Your task to perform on an android device: turn on sleep mode Image 0: 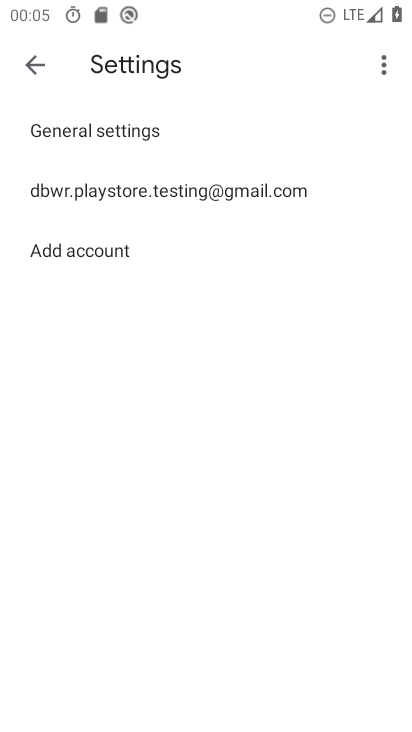
Step 0: press home button
Your task to perform on an android device: turn on sleep mode Image 1: 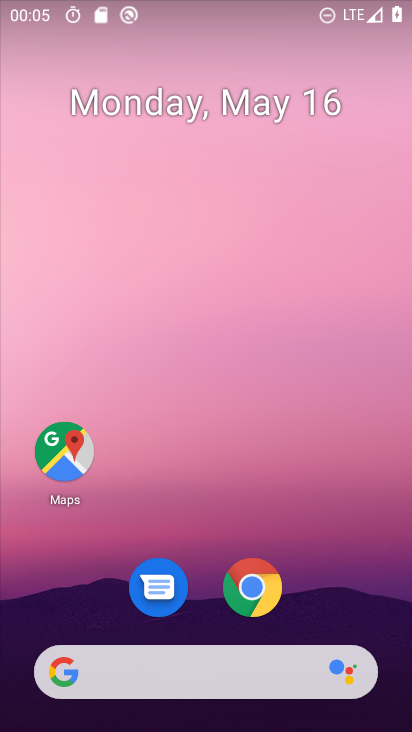
Step 1: drag from (207, 627) to (212, 195)
Your task to perform on an android device: turn on sleep mode Image 2: 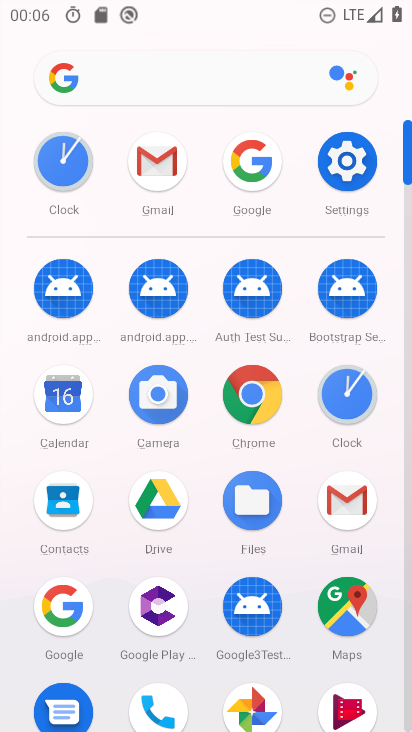
Step 2: click (353, 160)
Your task to perform on an android device: turn on sleep mode Image 3: 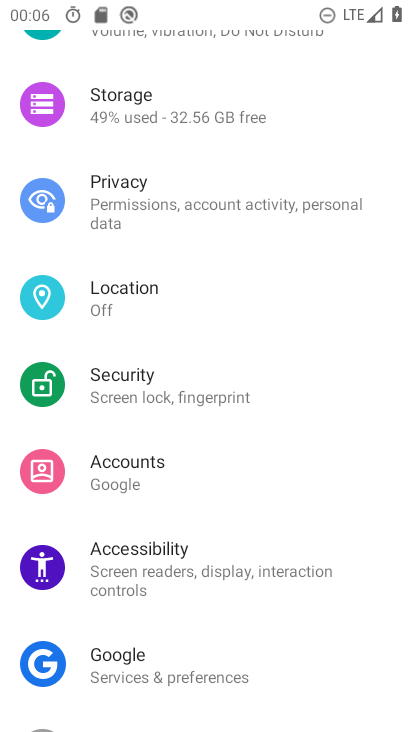
Step 3: drag from (154, 248) to (158, 455)
Your task to perform on an android device: turn on sleep mode Image 4: 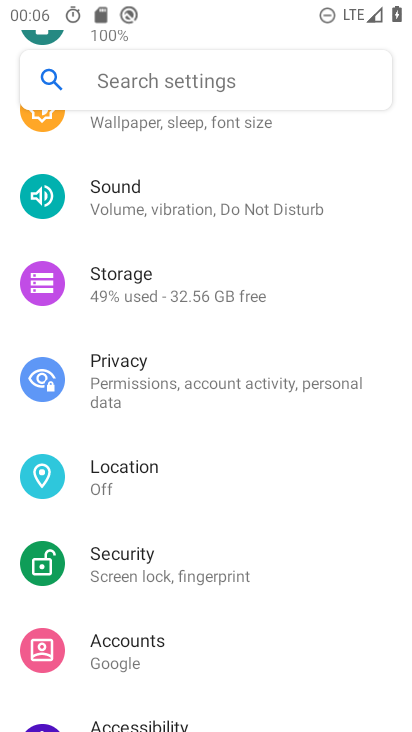
Step 4: drag from (162, 257) to (163, 466)
Your task to perform on an android device: turn on sleep mode Image 5: 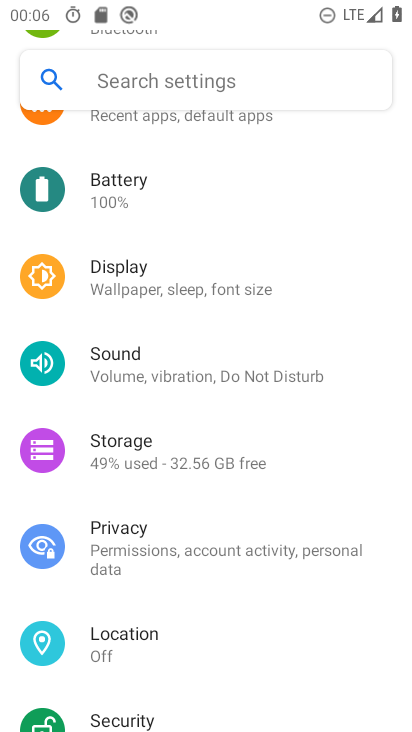
Step 5: drag from (200, 218) to (200, 386)
Your task to perform on an android device: turn on sleep mode Image 6: 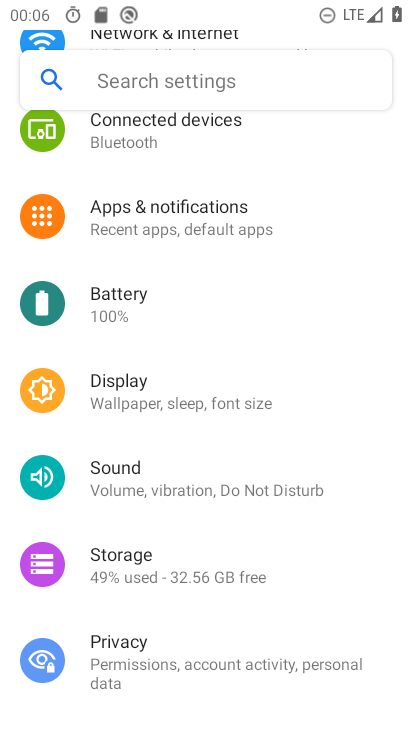
Step 6: click (154, 396)
Your task to perform on an android device: turn on sleep mode Image 7: 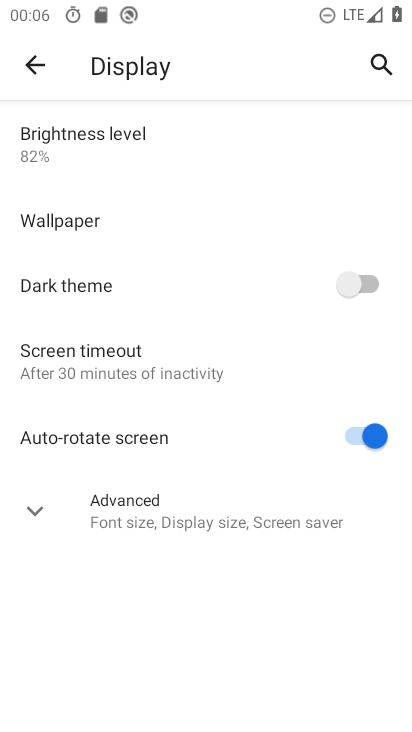
Step 7: click (92, 357)
Your task to perform on an android device: turn on sleep mode Image 8: 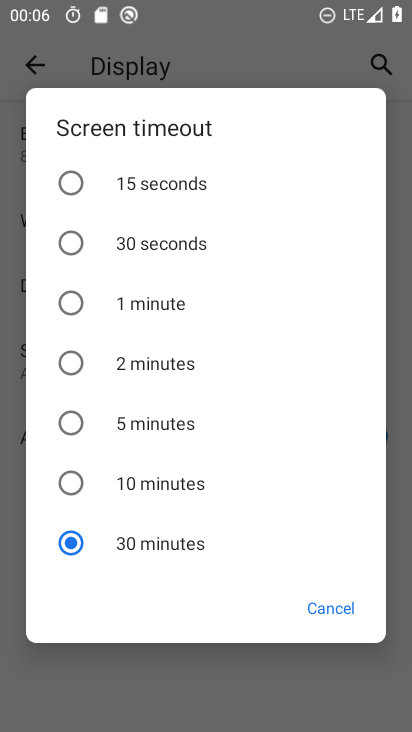
Step 8: click (143, 363)
Your task to perform on an android device: turn on sleep mode Image 9: 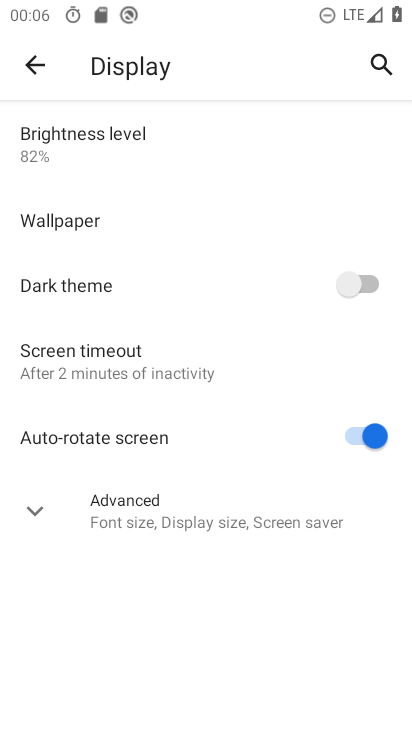
Step 9: task complete